Your task to perform on an android device: Search for Italian restaurants on Maps Image 0: 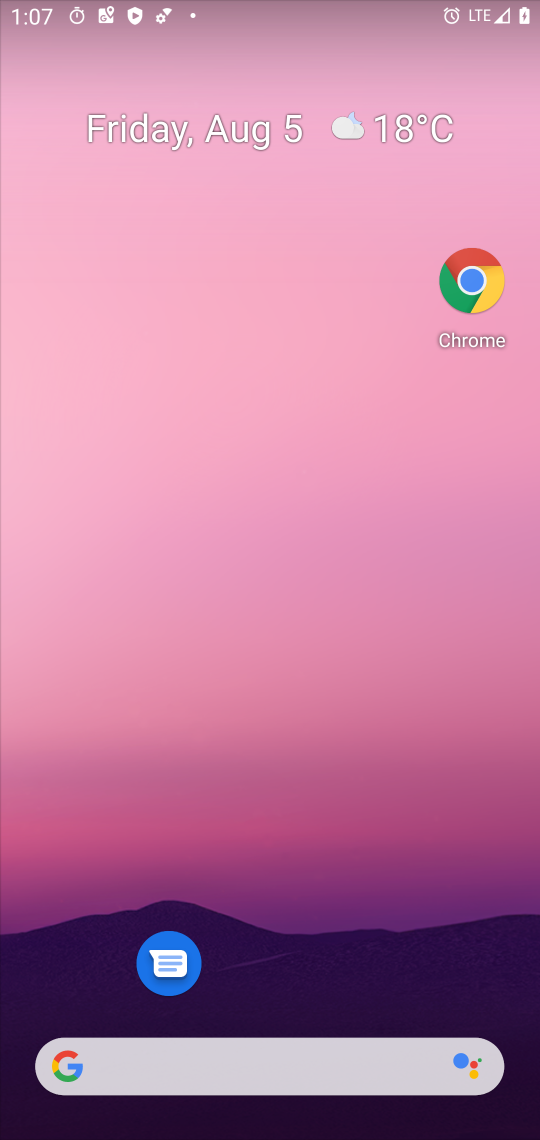
Step 0: drag from (304, 892) to (339, 103)
Your task to perform on an android device: Search for Italian restaurants on Maps Image 1: 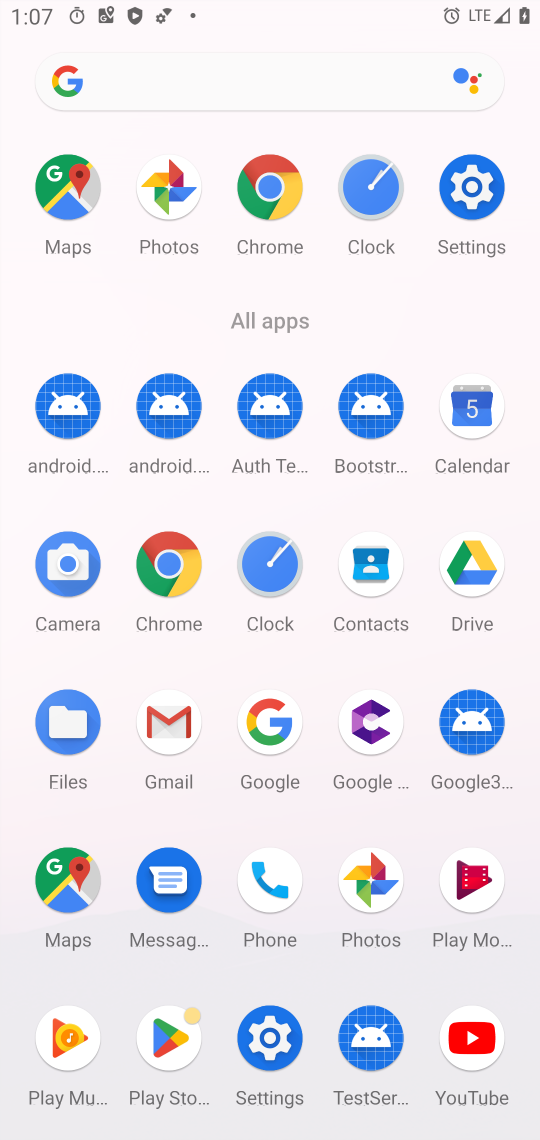
Step 1: click (65, 879)
Your task to perform on an android device: Search for Italian restaurants on Maps Image 2: 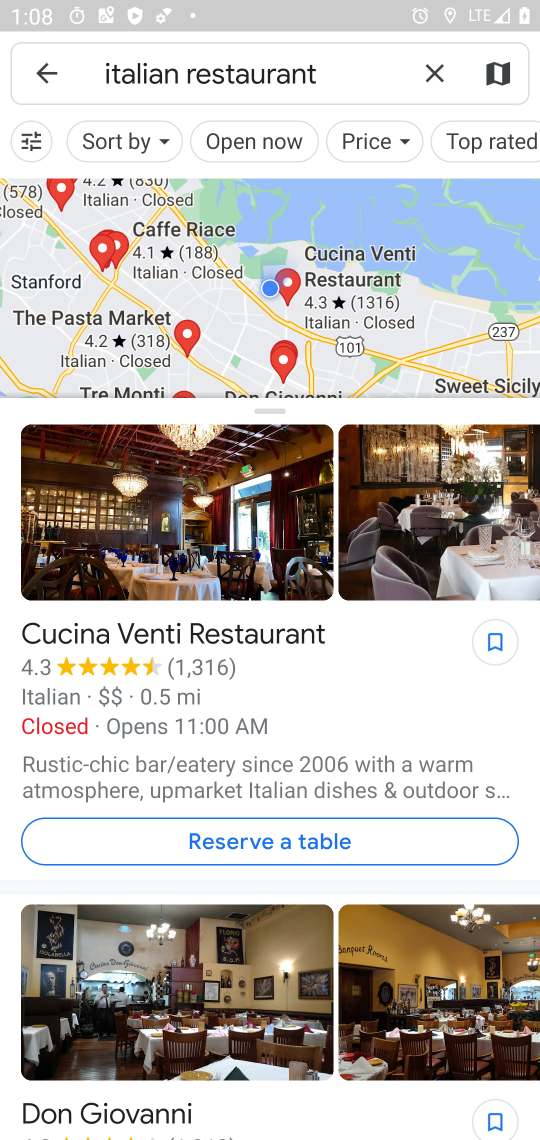
Step 2: task complete